Your task to perform on an android device: all mails in gmail Image 0: 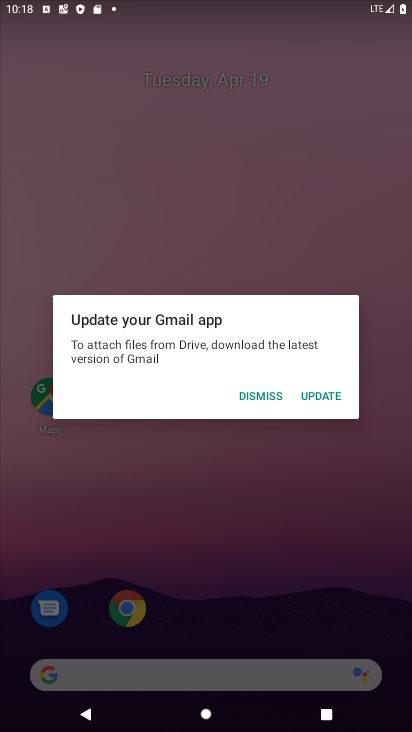
Step 0: press home button
Your task to perform on an android device: all mails in gmail Image 1: 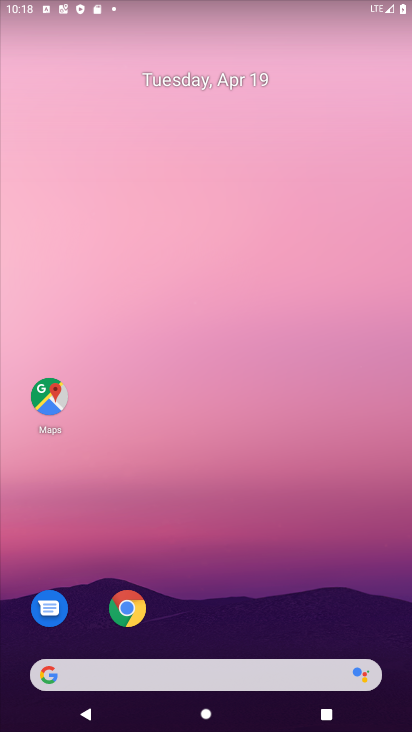
Step 1: drag from (340, 615) to (280, 96)
Your task to perform on an android device: all mails in gmail Image 2: 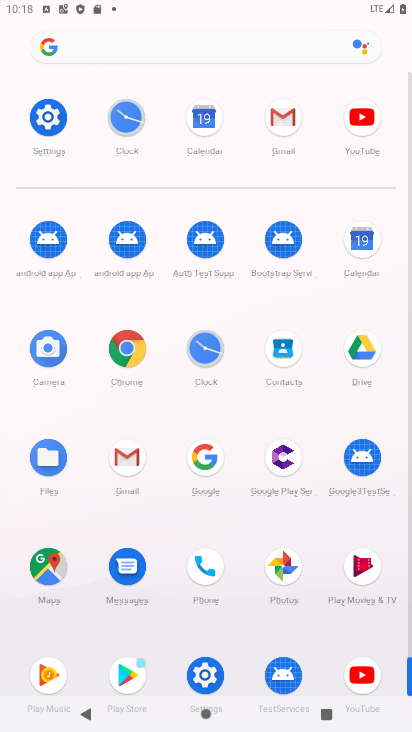
Step 2: click (126, 458)
Your task to perform on an android device: all mails in gmail Image 3: 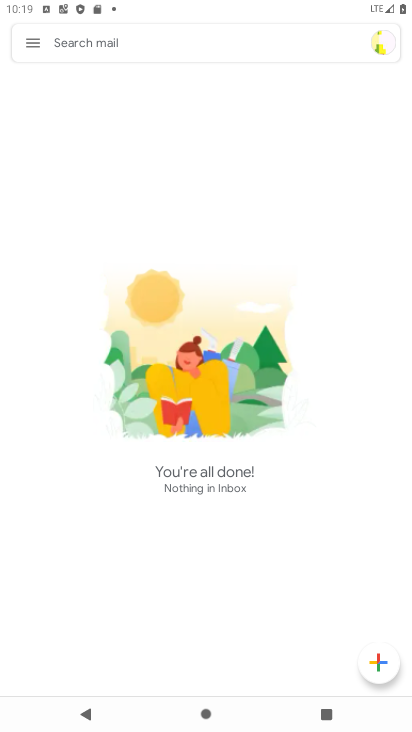
Step 3: click (32, 42)
Your task to perform on an android device: all mails in gmail Image 4: 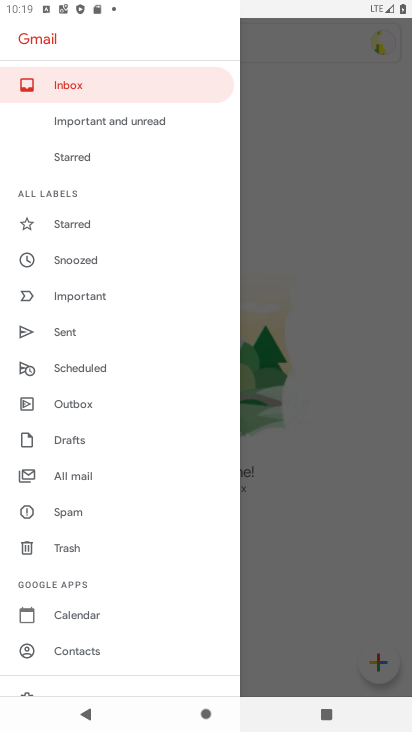
Step 4: click (68, 479)
Your task to perform on an android device: all mails in gmail Image 5: 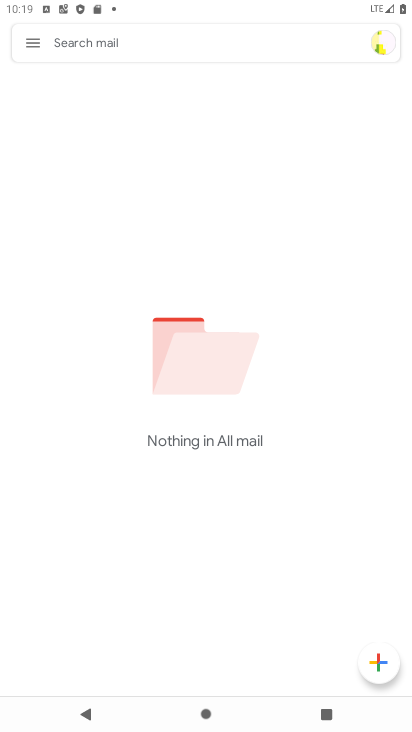
Step 5: task complete